Your task to perform on an android device: search for starred emails in the gmail app Image 0: 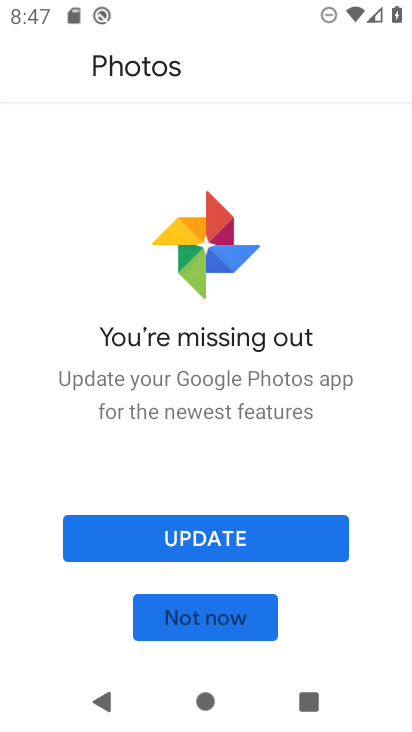
Step 0: press home button
Your task to perform on an android device: search for starred emails in the gmail app Image 1: 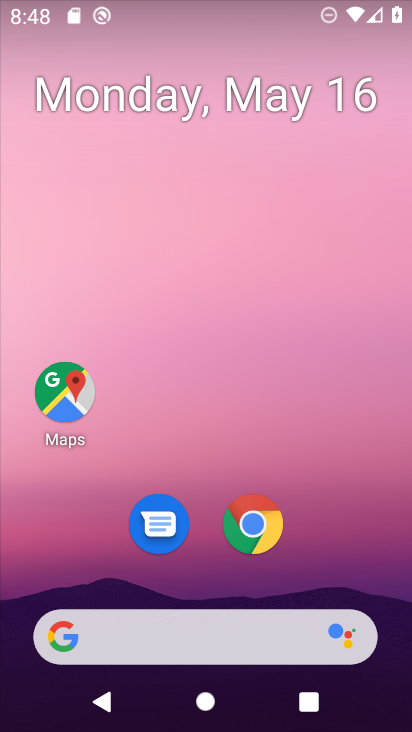
Step 1: drag from (342, 547) to (324, 59)
Your task to perform on an android device: search for starred emails in the gmail app Image 2: 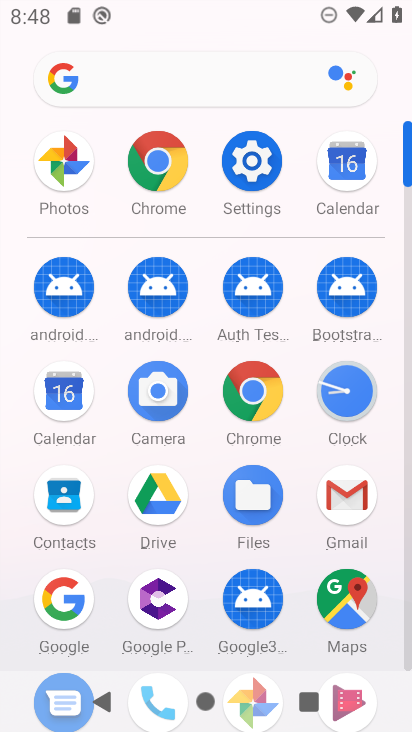
Step 2: click (337, 491)
Your task to perform on an android device: search for starred emails in the gmail app Image 3: 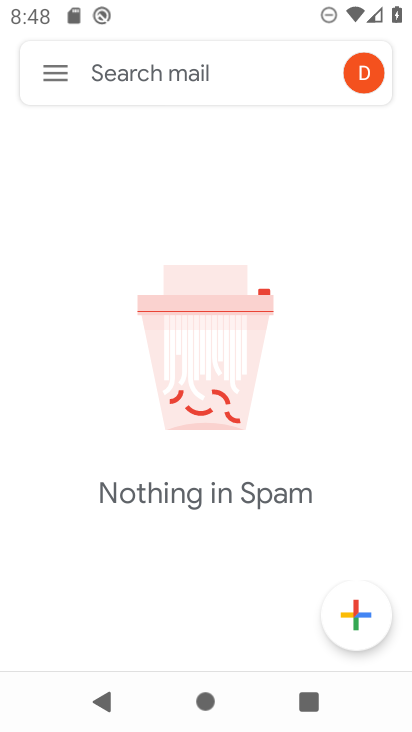
Step 3: click (61, 75)
Your task to perform on an android device: search for starred emails in the gmail app Image 4: 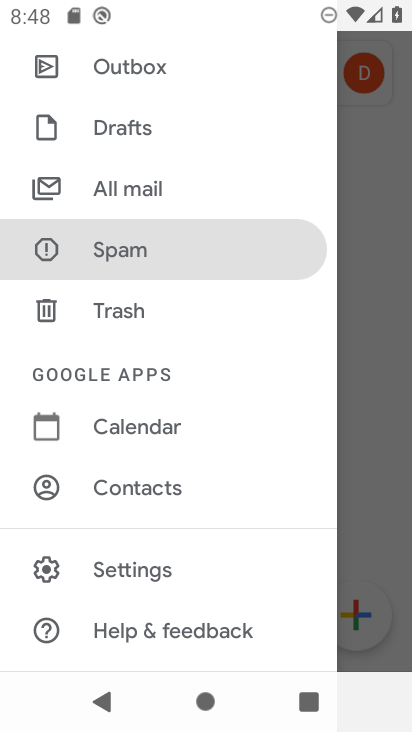
Step 4: drag from (190, 147) to (187, 584)
Your task to perform on an android device: search for starred emails in the gmail app Image 5: 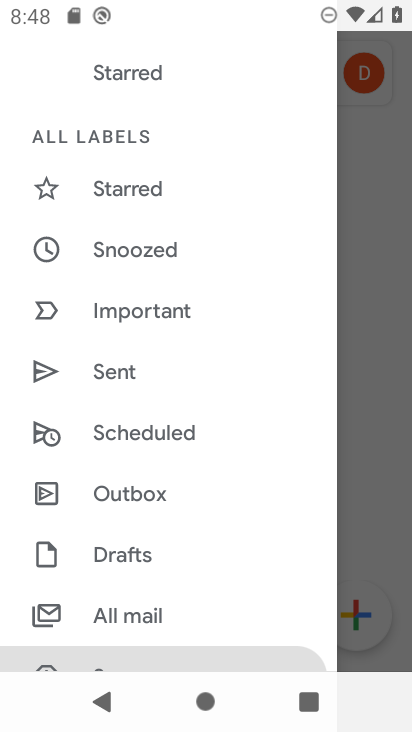
Step 5: click (138, 171)
Your task to perform on an android device: search for starred emails in the gmail app Image 6: 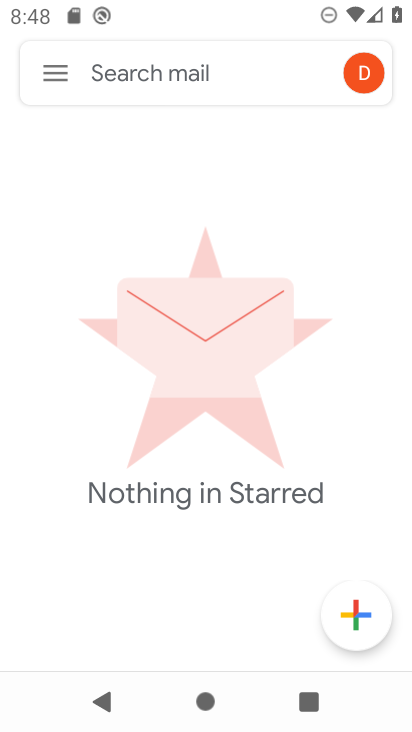
Step 6: task complete